Your task to perform on an android device: change the clock display to analog Image 0: 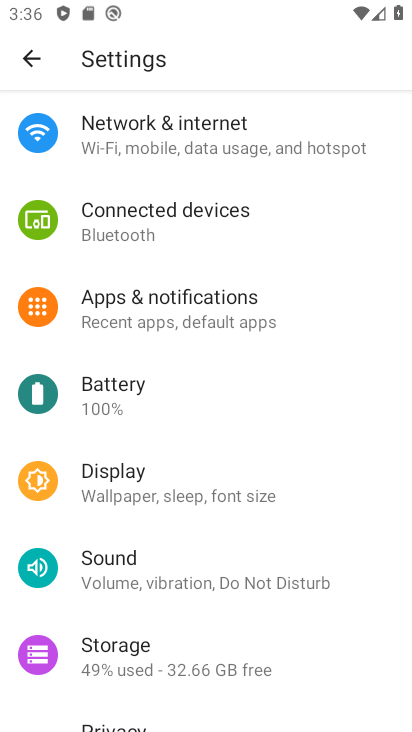
Step 0: press home button
Your task to perform on an android device: change the clock display to analog Image 1: 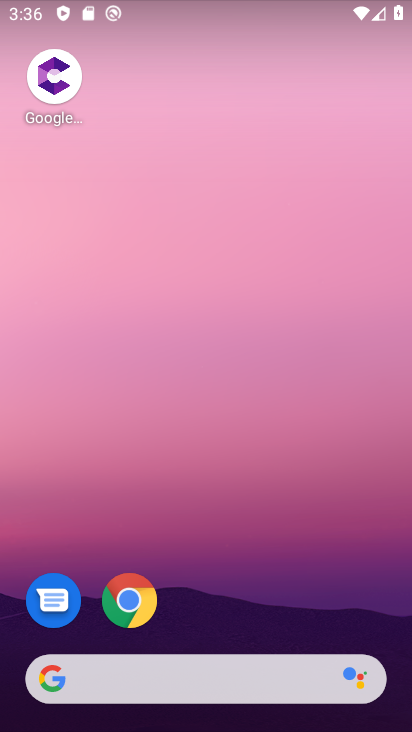
Step 1: drag from (295, 657) to (348, 104)
Your task to perform on an android device: change the clock display to analog Image 2: 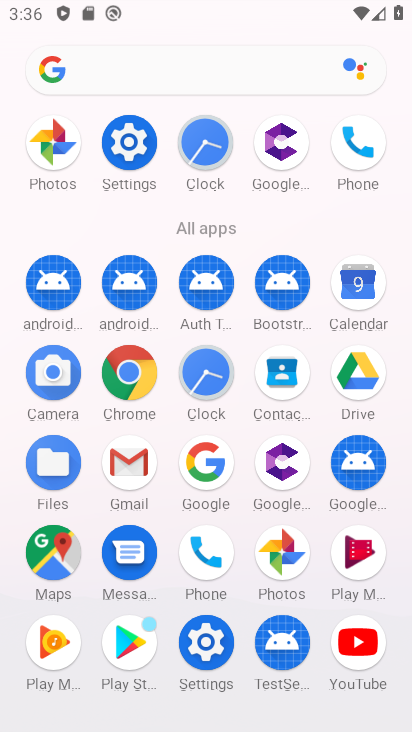
Step 2: click (205, 373)
Your task to perform on an android device: change the clock display to analog Image 3: 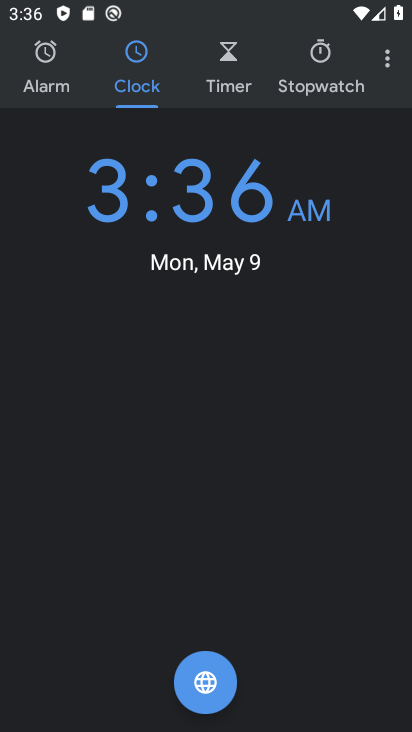
Step 3: drag from (382, 65) to (270, 132)
Your task to perform on an android device: change the clock display to analog Image 4: 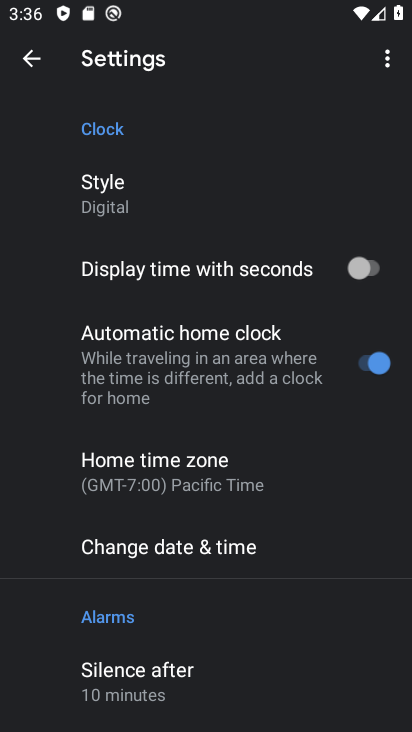
Step 4: drag from (314, 659) to (330, 720)
Your task to perform on an android device: change the clock display to analog Image 5: 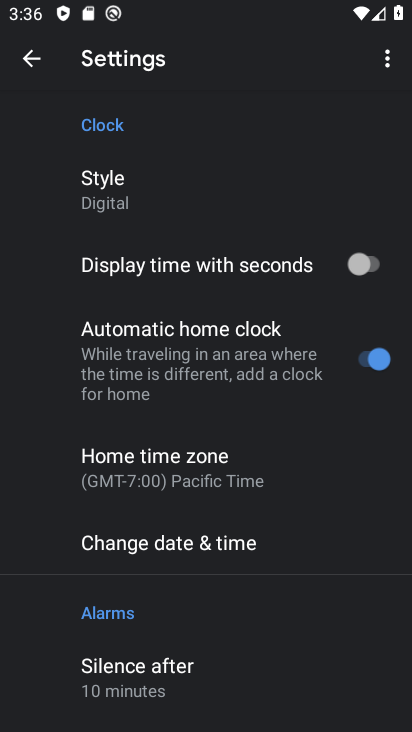
Step 5: click (220, 174)
Your task to perform on an android device: change the clock display to analog Image 6: 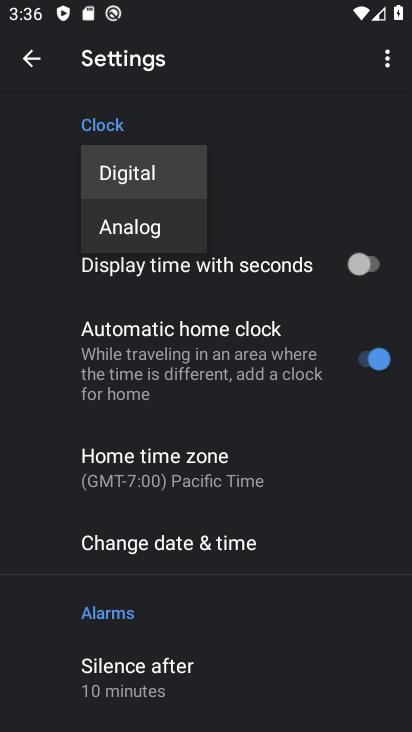
Step 6: click (181, 226)
Your task to perform on an android device: change the clock display to analog Image 7: 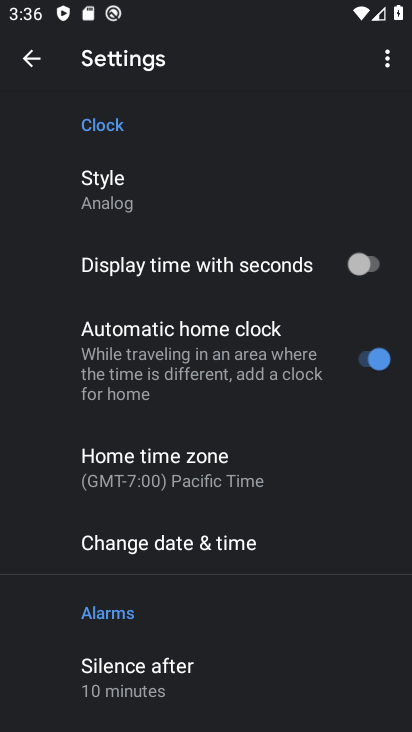
Step 7: task complete